Your task to perform on an android device: Go to Yahoo.com Image 0: 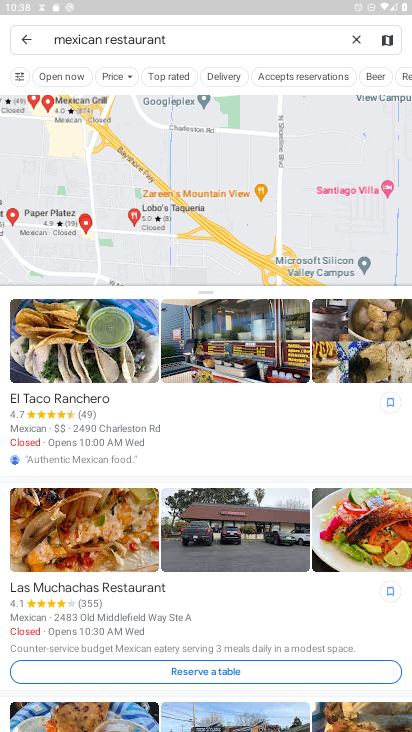
Step 0: press home button
Your task to perform on an android device: Go to Yahoo.com Image 1: 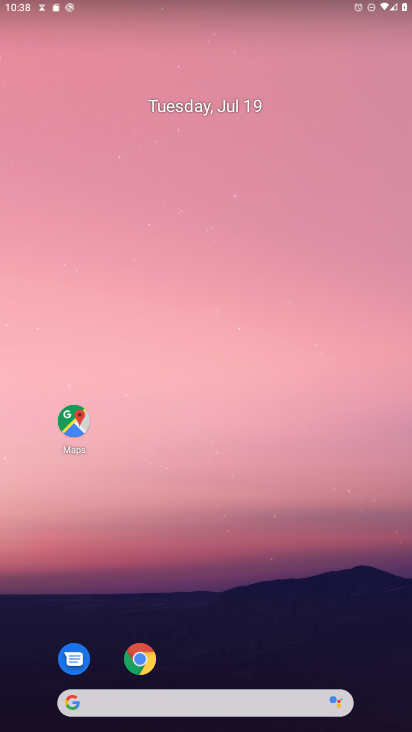
Step 1: drag from (236, 664) to (214, 269)
Your task to perform on an android device: Go to Yahoo.com Image 2: 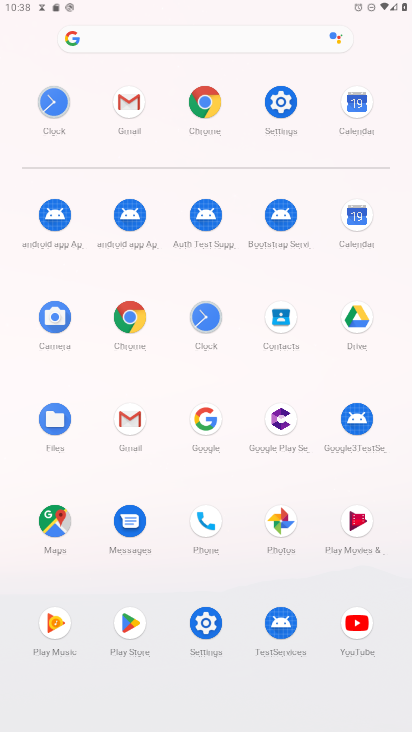
Step 2: click (202, 100)
Your task to perform on an android device: Go to Yahoo.com Image 3: 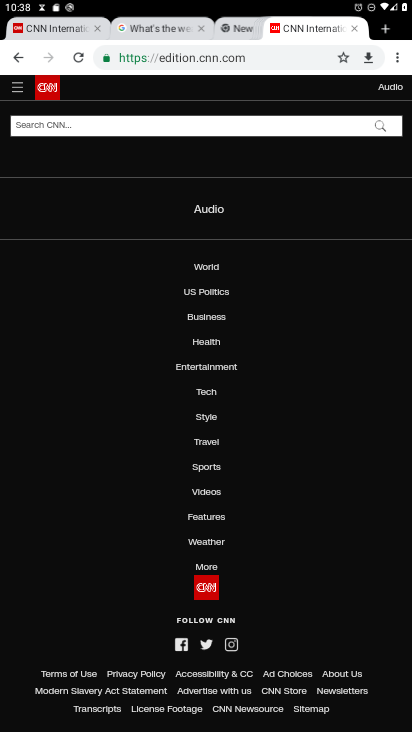
Step 3: click (394, 54)
Your task to perform on an android device: Go to Yahoo.com Image 4: 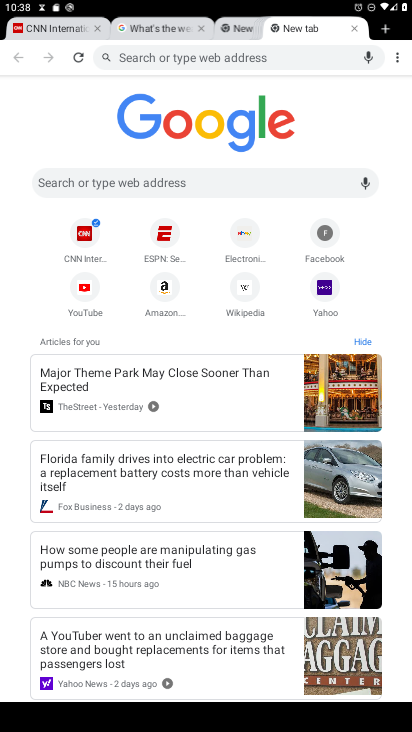
Step 4: click (316, 286)
Your task to perform on an android device: Go to Yahoo.com Image 5: 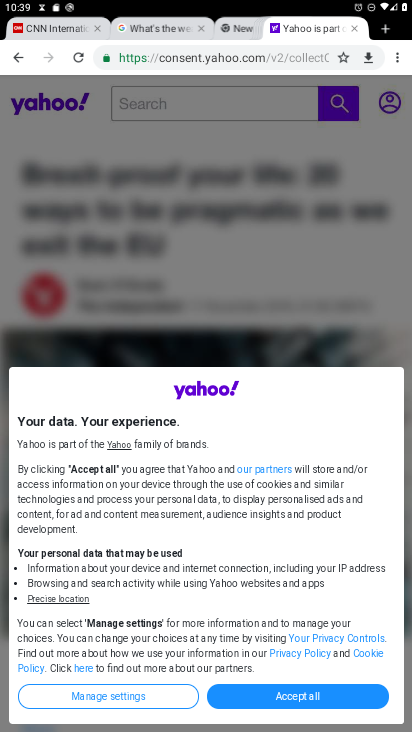
Step 5: task complete